Your task to perform on an android device: Show me the alarms in the clock app Image 0: 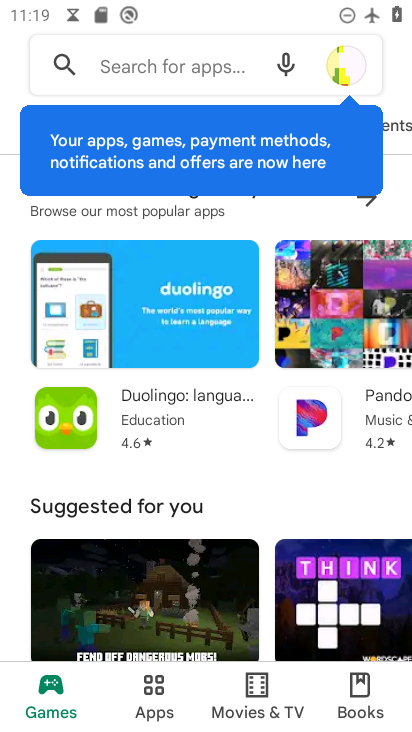
Step 0: press home button
Your task to perform on an android device: Show me the alarms in the clock app Image 1: 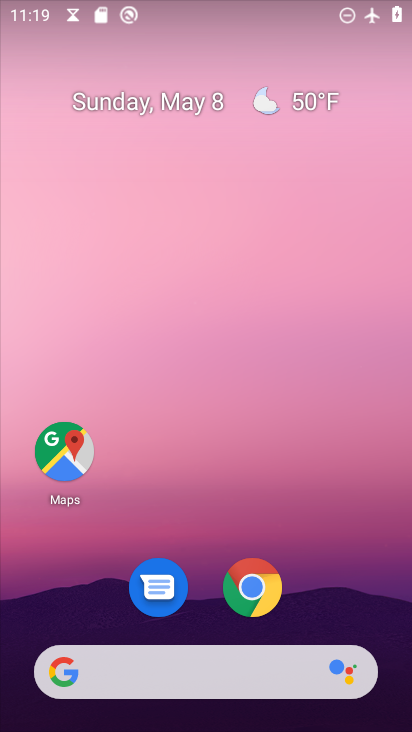
Step 1: drag from (326, 593) to (269, 151)
Your task to perform on an android device: Show me the alarms in the clock app Image 2: 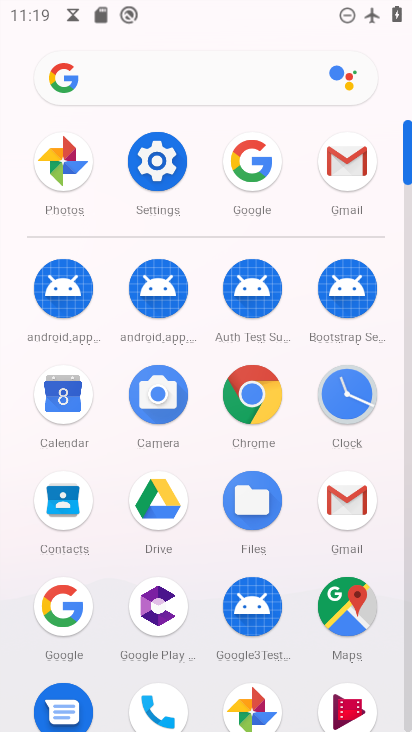
Step 2: click (360, 409)
Your task to perform on an android device: Show me the alarms in the clock app Image 3: 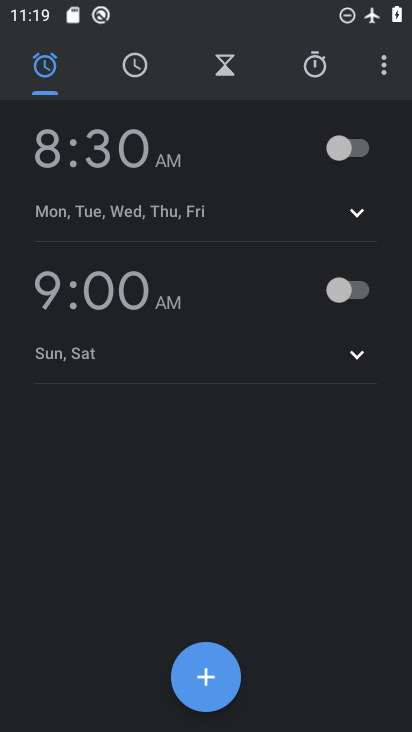
Step 3: task complete